Your task to perform on an android device: Go to battery settings Image 0: 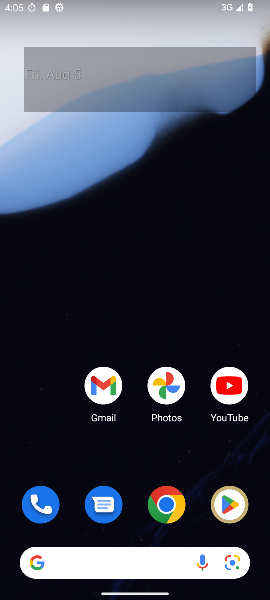
Step 0: drag from (20, 581) to (67, 23)
Your task to perform on an android device: Go to battery settings Image 1: 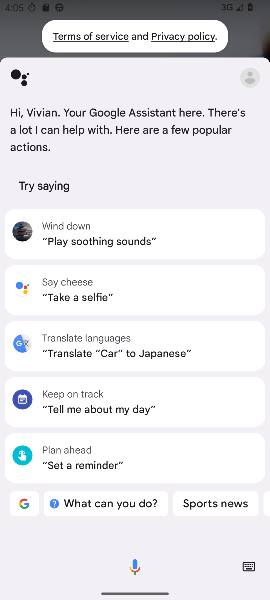
Step 1: press home button
Your task to perform on an android device: Go to battery settings Image 2: 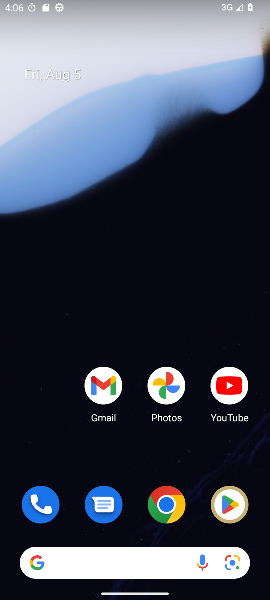
Step 2: drag from (53, 580) to (69, 64)
Your task to perform on an android device: Go to battery settings Image 3: 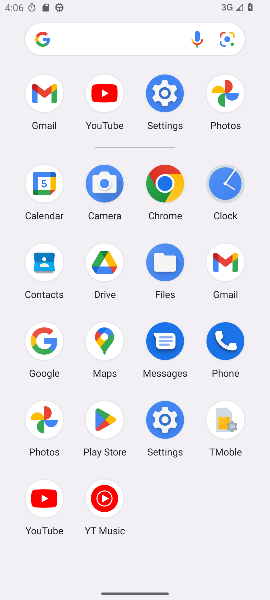
Step 3: click (176, 423)
Your task to perform on an android device: Go to battery settings Image 4: 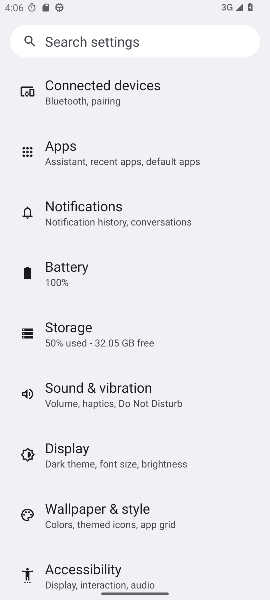
Step 4: click (73, 281)
Your task to perform on an android device: Go to battery settings Image 5: 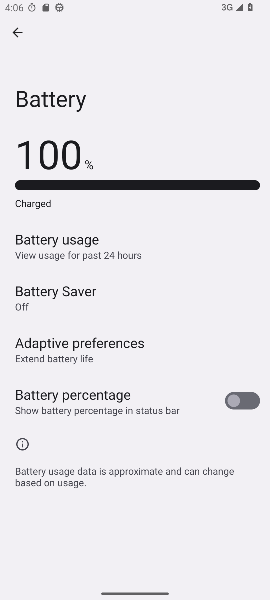
Step 5: task complete